Your task to perform on an android device: snooze an email in the gmail app Image 0: 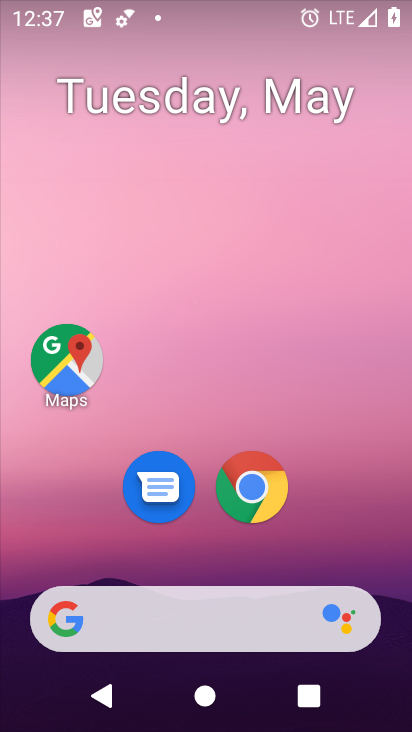
Step 0: press home button
Your task to perform on an android device: snooze an email in the gmail app Image 1: 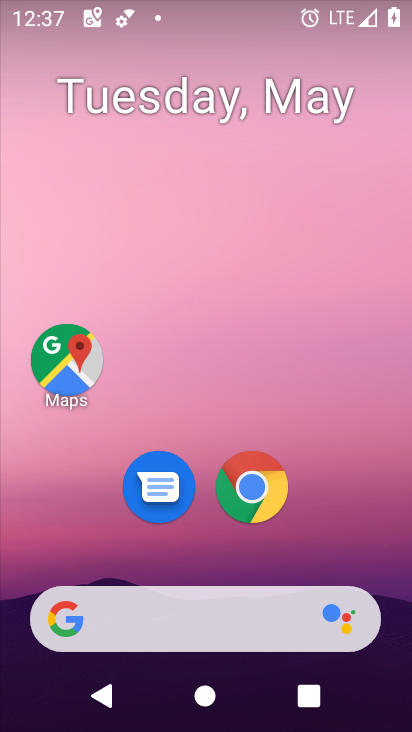
Step 1: drag from (67, 505) to (378, 40)
Your task to perform on an android device: snooze an email in the gmail app Image 2: 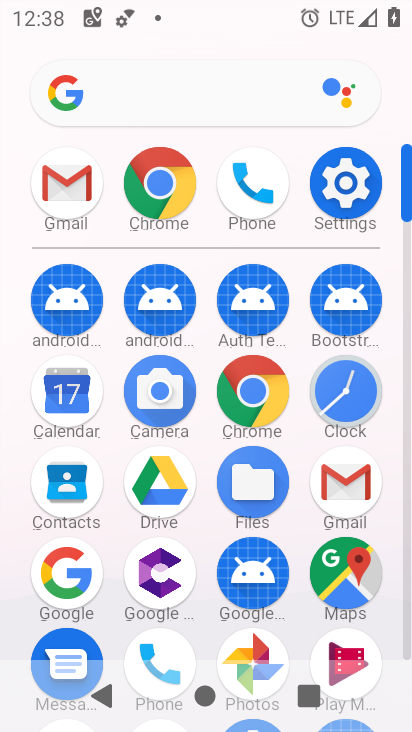
Step 2: click (346, 493)
Your task to perform on an android device: snooze an email in the gmail app Image 3: 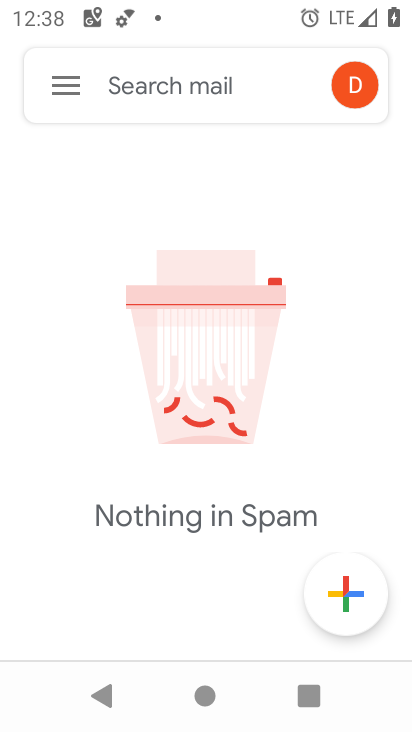
Step 3: click (76, 83)
Your task to perform on an android device: snooze an email in the gmail app Image 4: 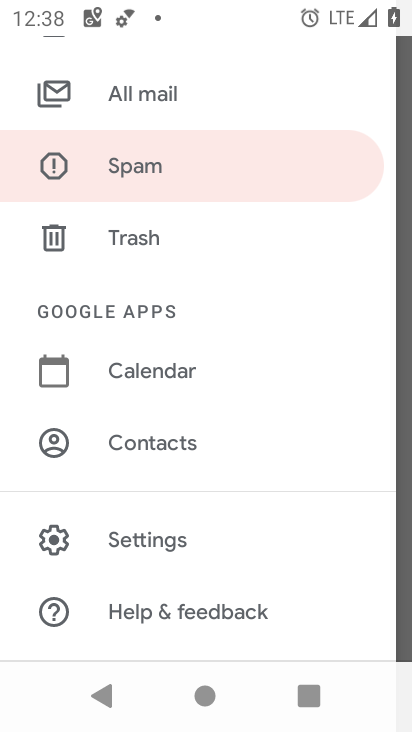
Step 4: click (158, 89)
Your task to perform on an android device: snooze an email in the gmail app Image 5: 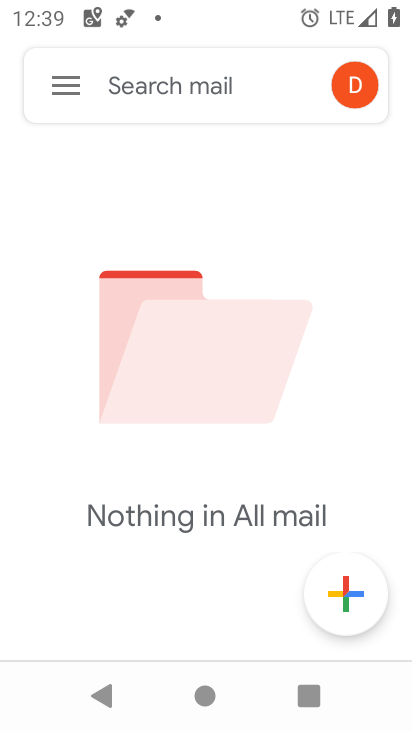
Step 5: task complete